Your task to perform on an android device: find photos in the google photos app Image 0: 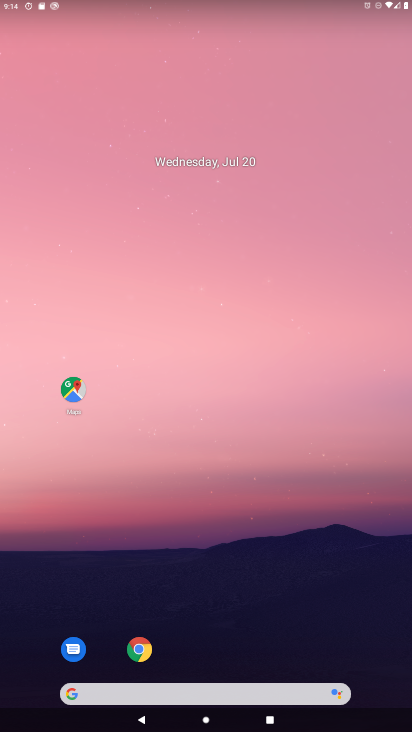
Step 0: drag from (196, 699) to (328, 162)
Your task to perform on an android device: find photos in the google photos app Image 1: 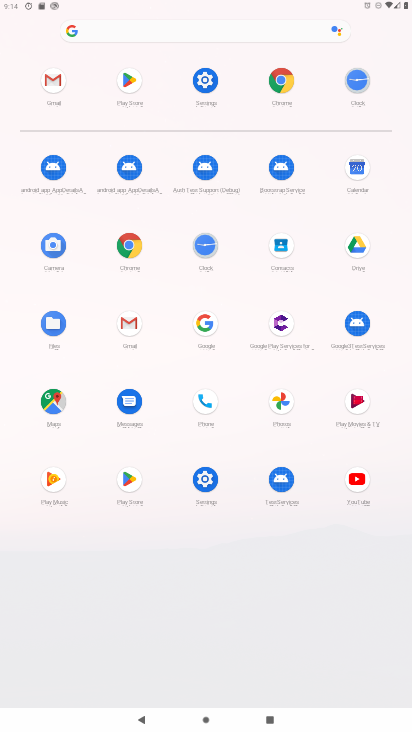
Step 1: click (281, 403)
Your task to perform on an android device: find photos in the google photos app Image 2: 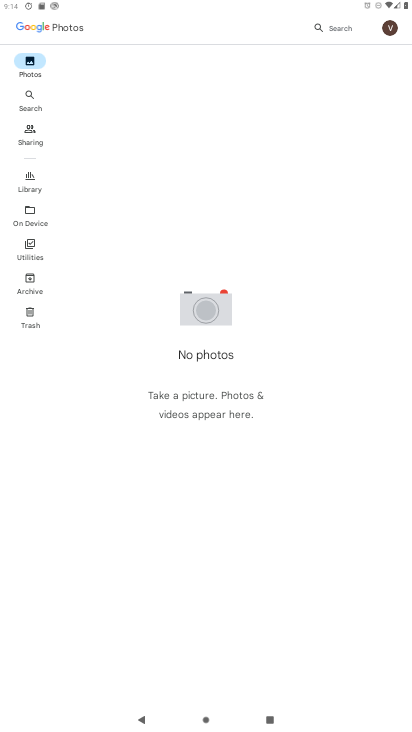
Step 2: click (27, 100)
Your task to perform on an android device: find photos in the google photos app Image 3: 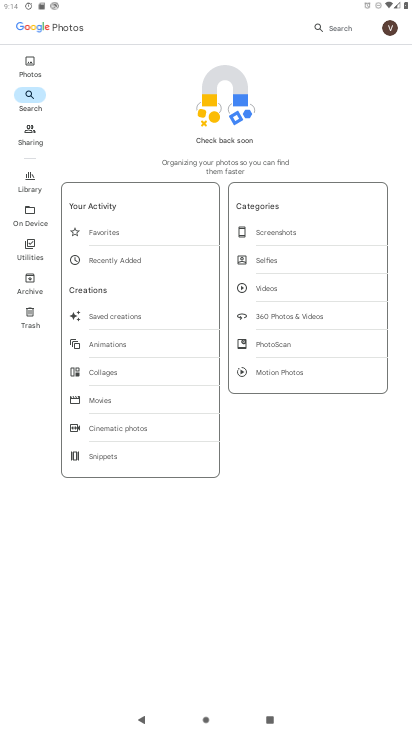
Step 3: click (102, 232)
Your task to perform on an android device: find photos in the google photos app Image 4: 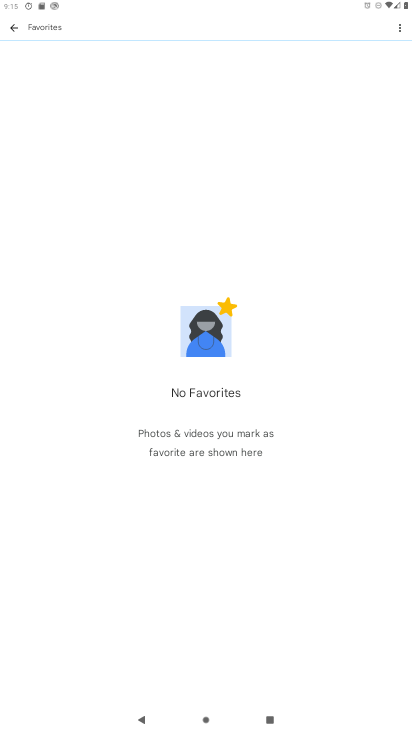
Step 4: press back button
Your task to perform on an android device: find photos in the google photos app Image 5: 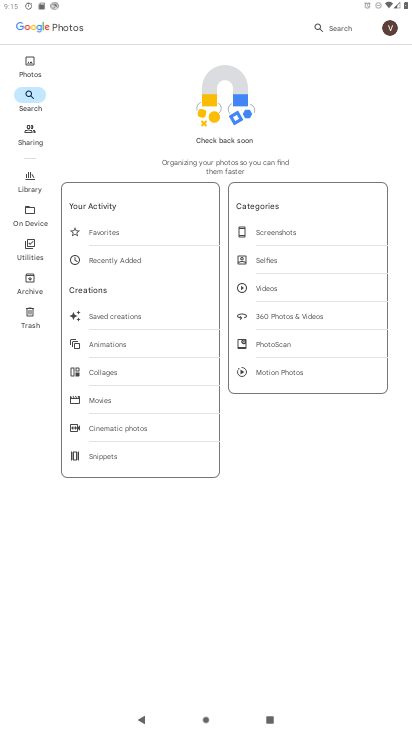
Step 5: click (135, 255)
Your task to perform on an android device: find photos in the google photos app Image 6: 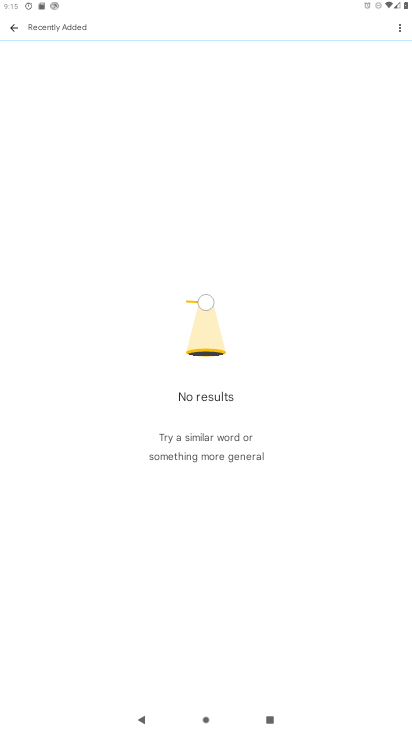
Step 6: press back button
Your task to perform on an android device: find photos in the google photos app Image 7: 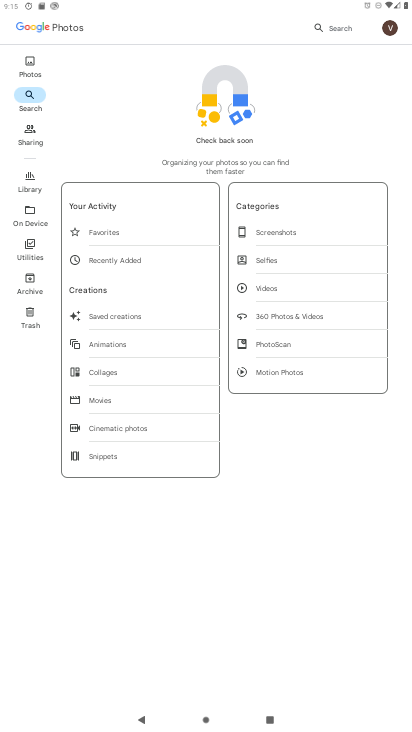
Step 7: click (128, 315)
Your task to perform on an android device: find photos in the google photos app Image 8: 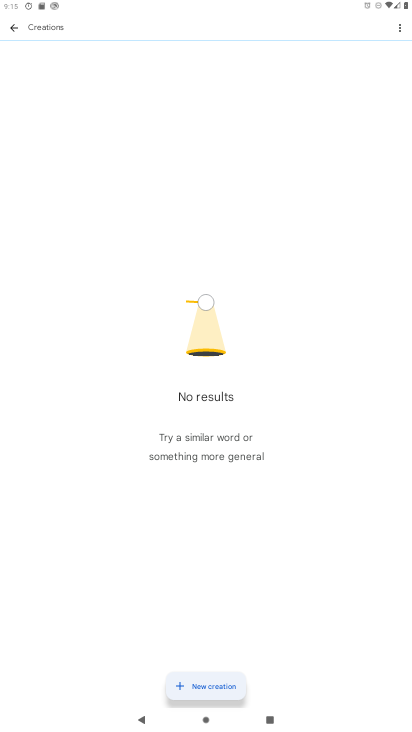
Step 8: press back button
Your task to perform on an android device: find photos in the google photos app Image 9: 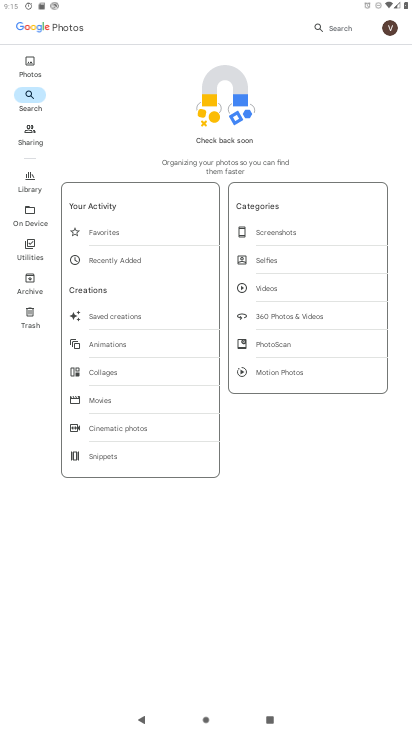
Step 9: click (113, 345)
Your task to perform on an android device: find photos in the google photos app Image 10: 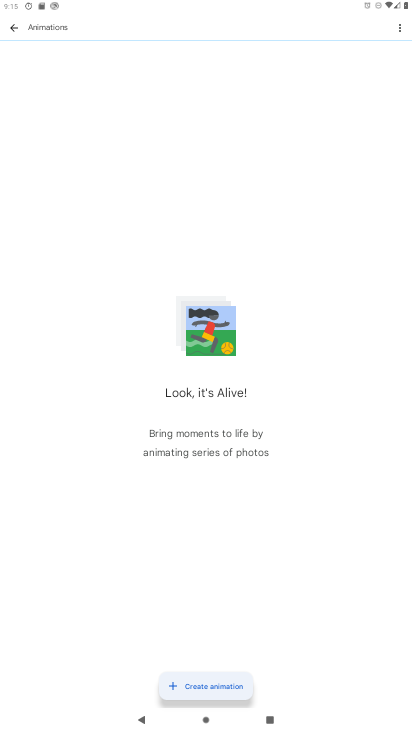
Step 10: press back button
Your task to perform on an android device: find photos in the google photos app Image 11: 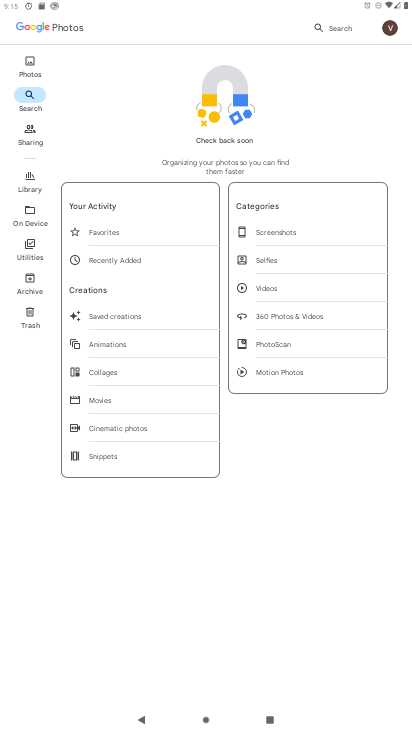
Step 11: click (110, 373)
Your task to perform on an android device: find photos in the google photos app Image 12: 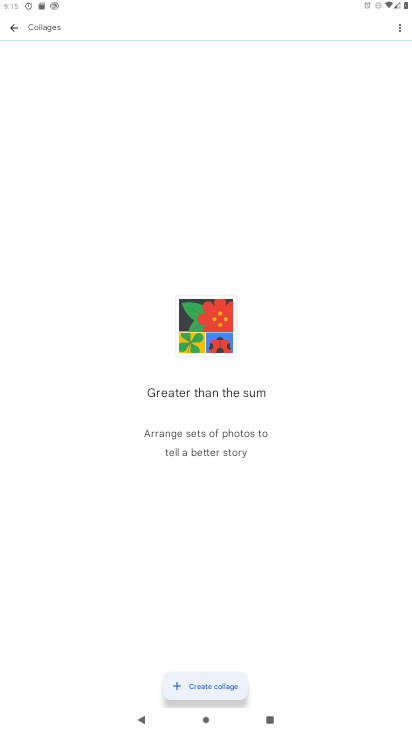
Step 12: task complete